Your task to perform on an android device: Go to Google Image 0: 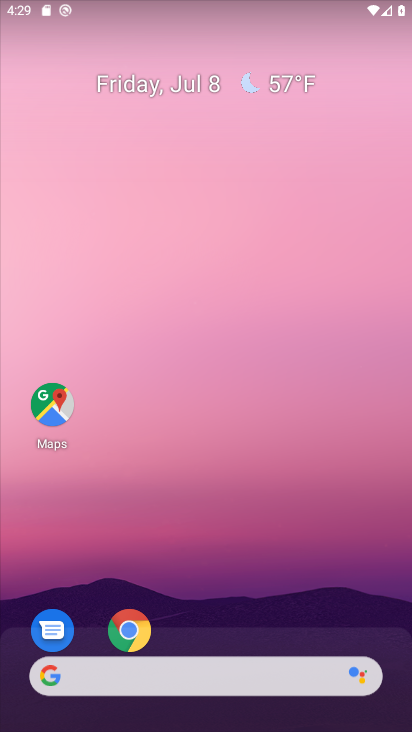
Step 0: drag from (158, 643) to (246, 98)
Your task to perform on an android device: Go to Google Image 1: 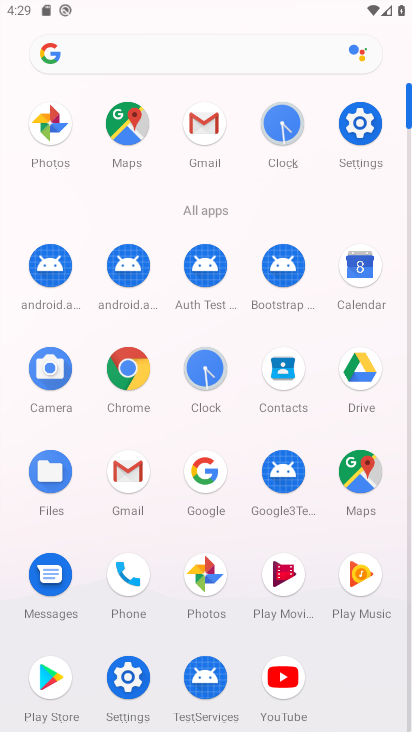
Step 1: drag from (227, 661) to (284, 162)
Your task to perform on an android device: Go to Google Image 2: 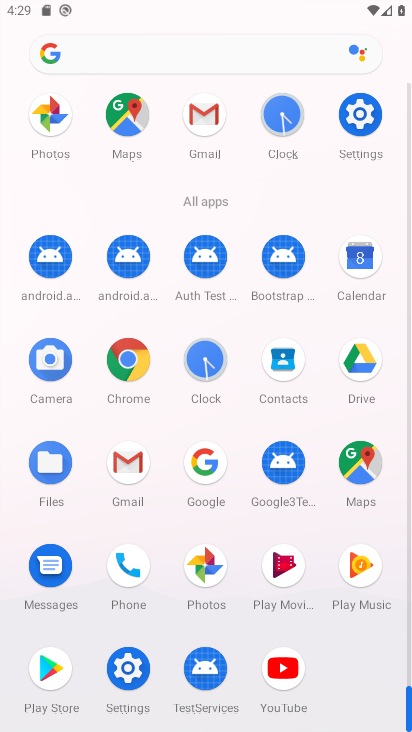
Step 2: click (204, 448)
Your task to perform on an android device: Go to Google Image 3: 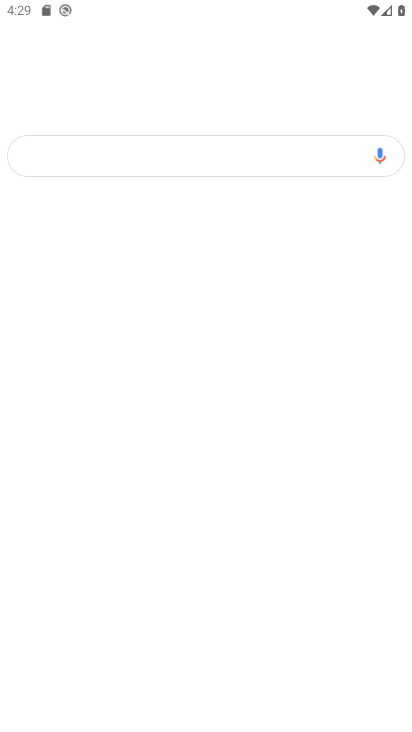
Step 3: click (201, 466)
Your task to perform on an android device: Go to Google Image 4: 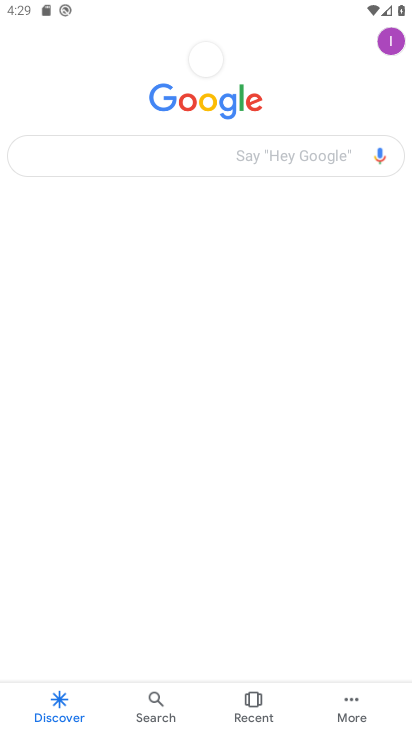
Step 4: task complete